Your task to perform on an android device: stop showing notifications on the lock screen Image 0: 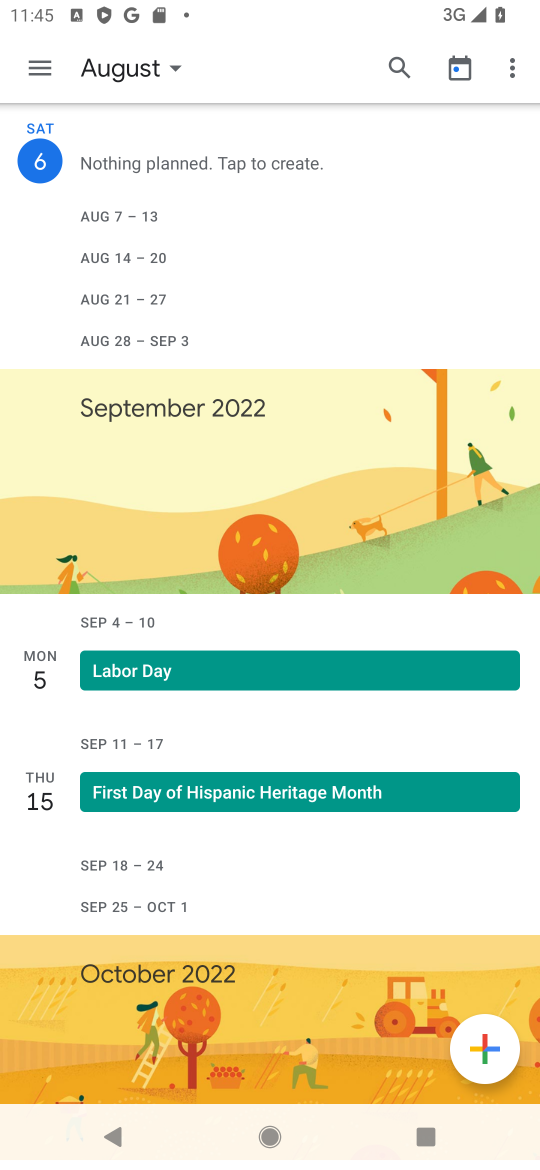
Step 0: press home button
Your task to perform on an android device: stop showing notifications on the lock screen Image 1: 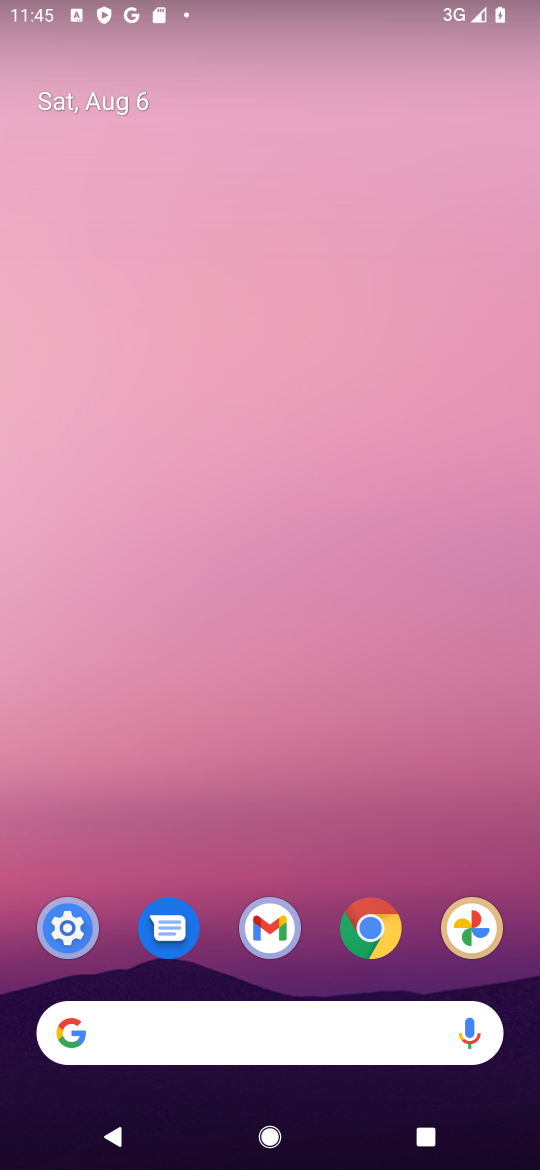
Step 1: click (73, 916)
Your task to perform on an android device: stop showing notifications on the lock screen Image 2: 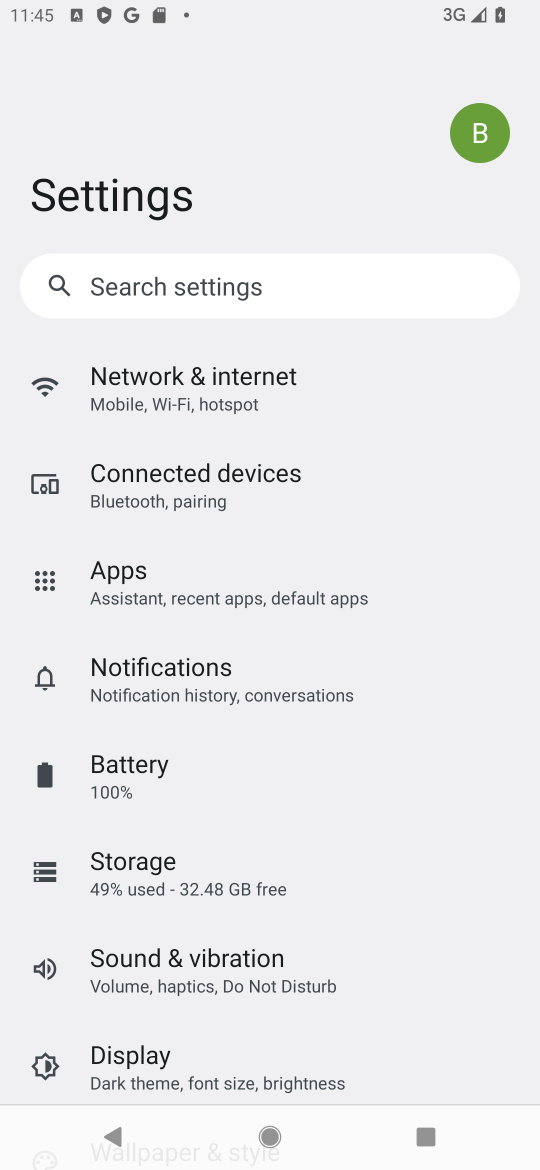
Step 2: click (262, 693)
Your task to perform on an android device: stop showing notifications on the lock screen Image 3: 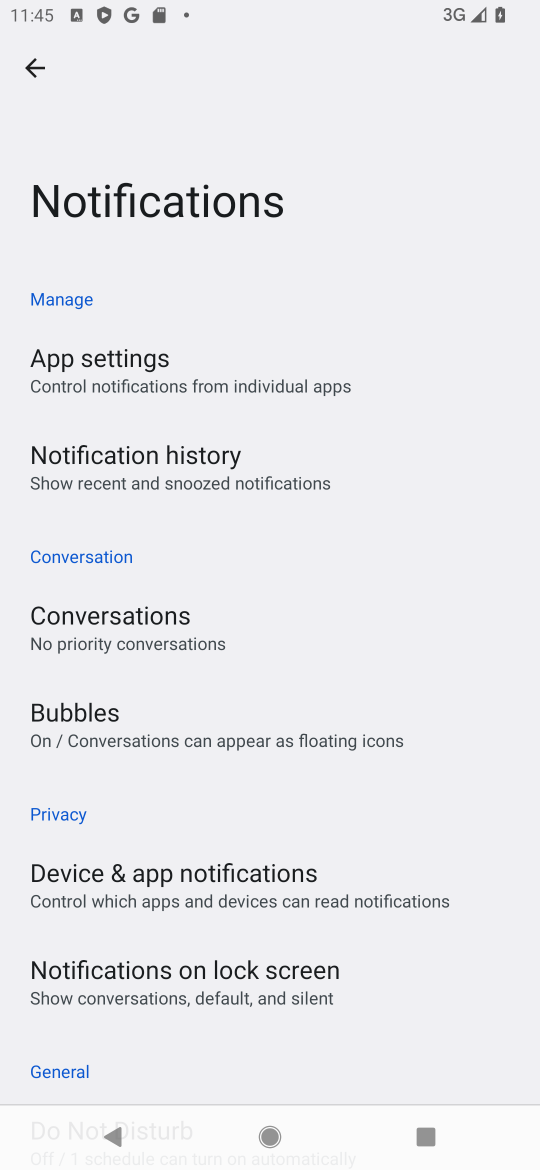
Step 3: drag from (441, 664) to (333, 134)
Your task to perform on an android device: stop showing notifications on the lock screen Image 4: 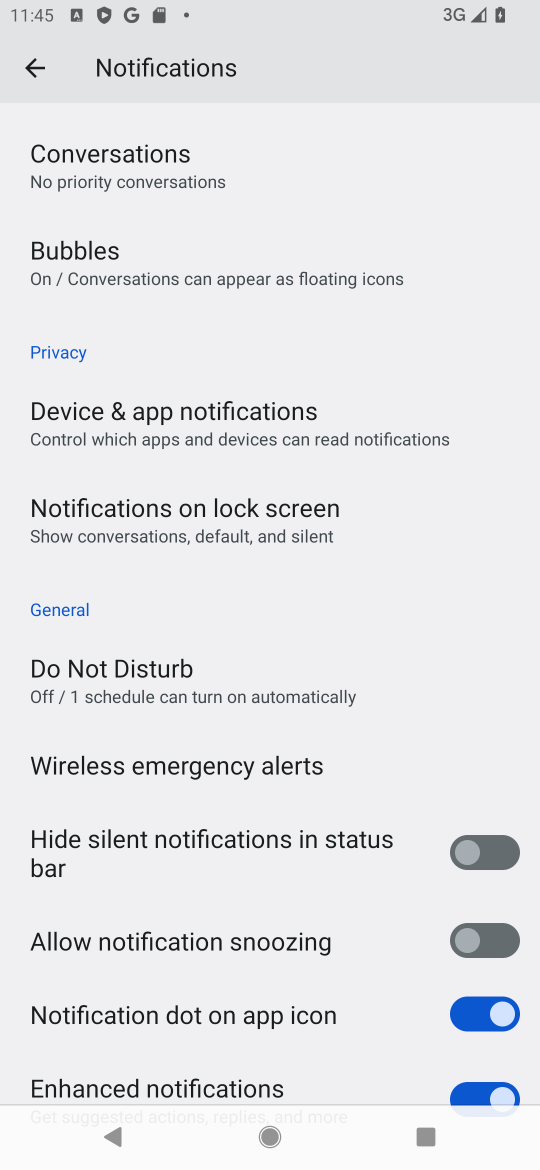
Step 4: drag from (403, 677) to (344, 169)
Your task to perform on an android device: stop showing notifications on the lock screen Image 5: 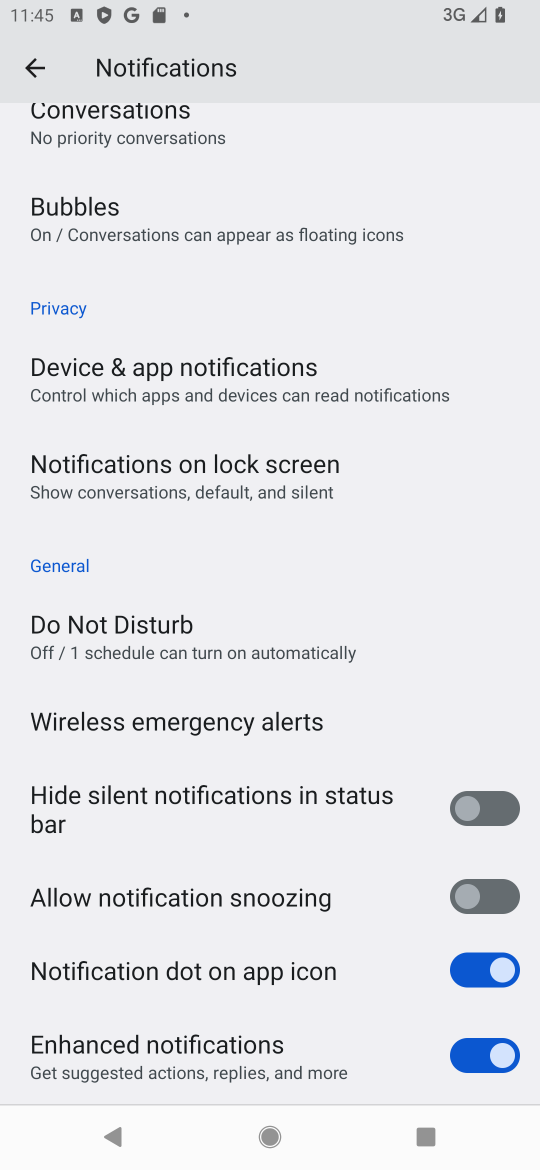
Step 5: click (200, 487)
Your task to perform on an android device: stop showing notifications on the lock screen Image 6: 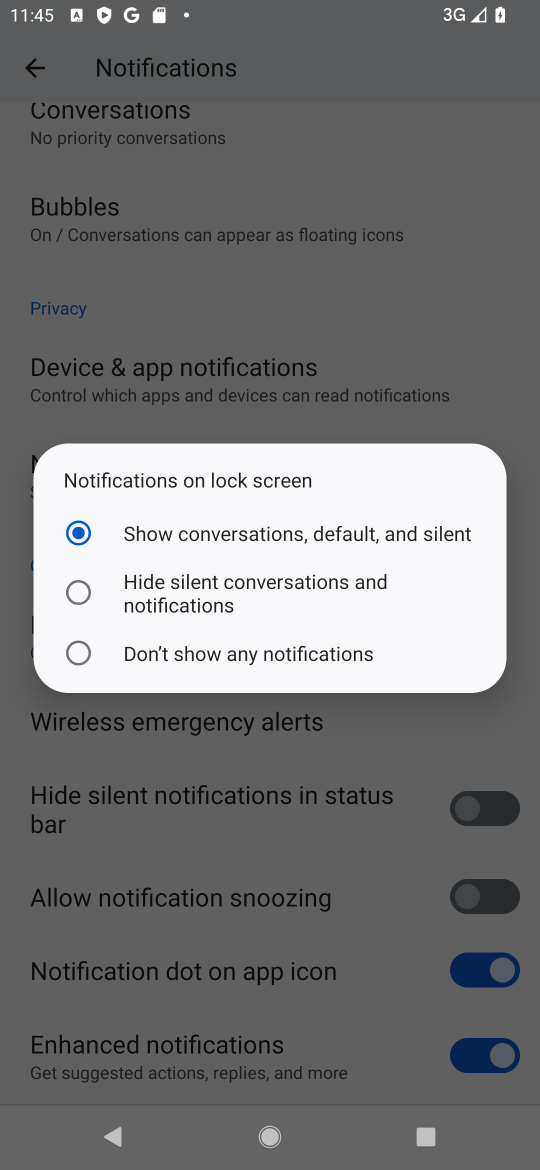
Step 6: click (213, 651)
Your task to perform on an android device: stop showing notifications on the lock screen Image 7: 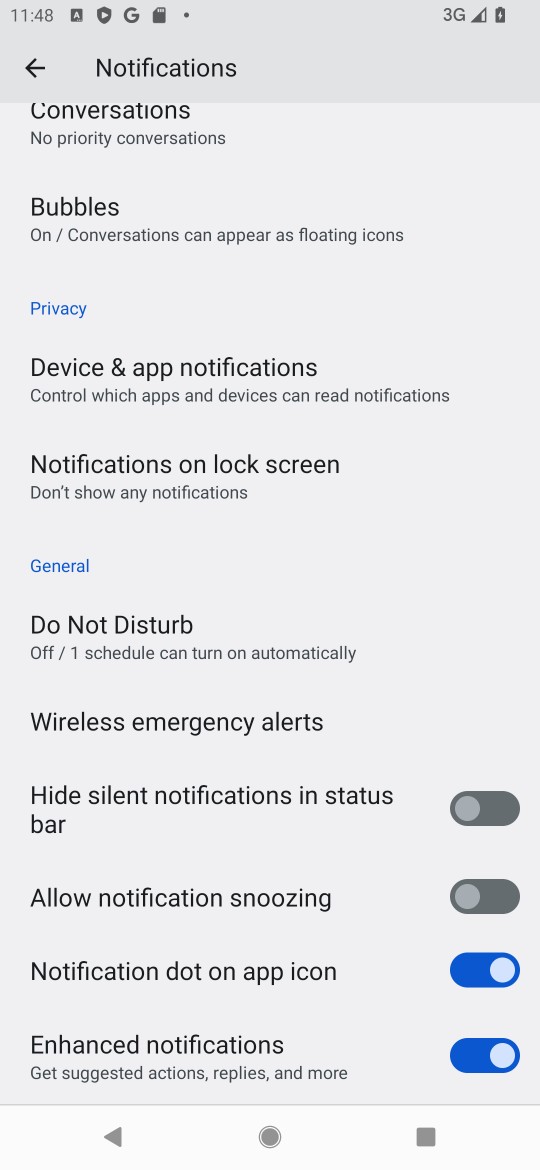
Step 7: task complete